Your task to perform on an android device: Open the calendar app, open the side menu, and click the "Day" option Image 0: 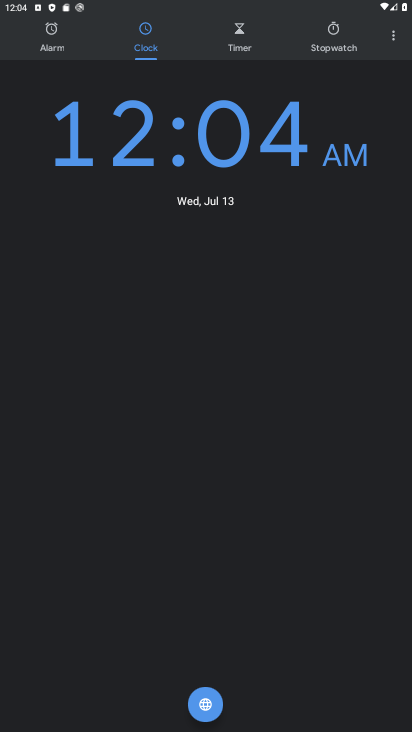
Step 0: press home button
Your task to perform on an android device: Open the calendar app, open the side menu, and click the "Day" option Image 1: 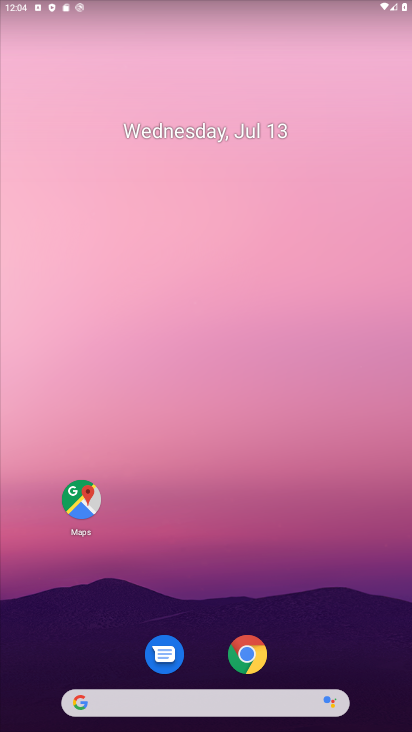
Step 1: drag from (262, 697) to (278, 158)
Your task to perform on an android device: Open the calendar app, open the side menu, and click the "Day" option Image 2: 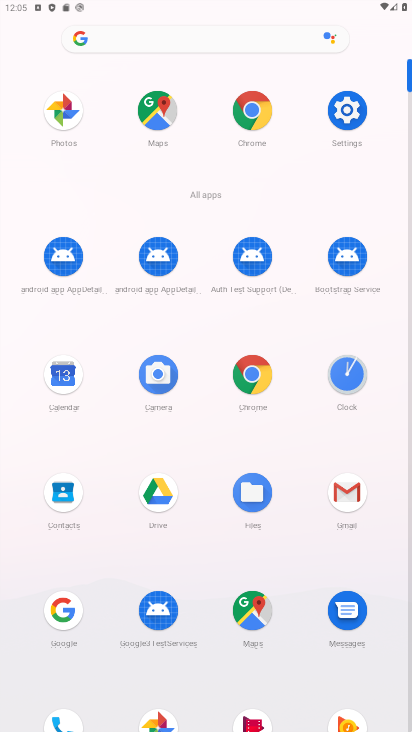
Step 2: click (72, 374)
Your task to perform on an android device: Open the calendar app, open the side menu, and click the "Day" option Image 3: 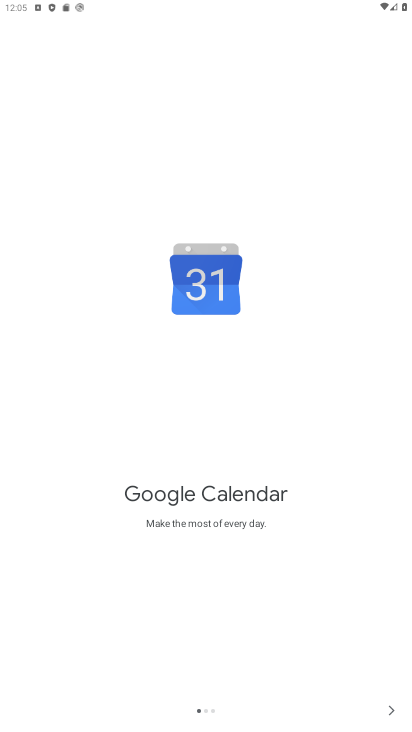
Step 3: click (386, 703)
Your task to perform on an android device: Open the calendar app, open the side menu, and click the "Day" option Image 4: 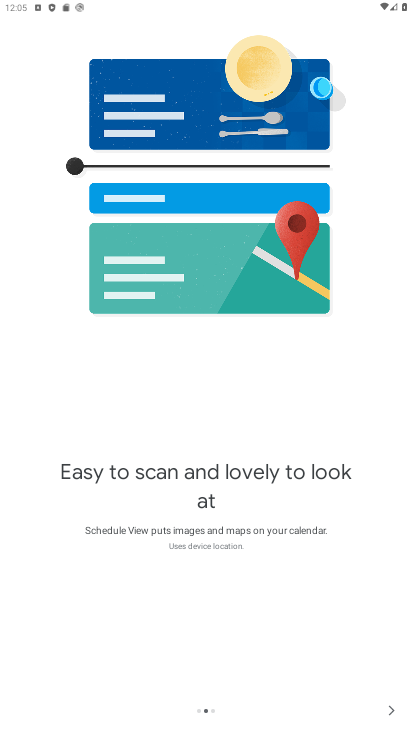
Step 4: click (392, 712)
Your task to perform on an android device: Open the calendar app, open the side menu, and click the "Day" option Image 5: 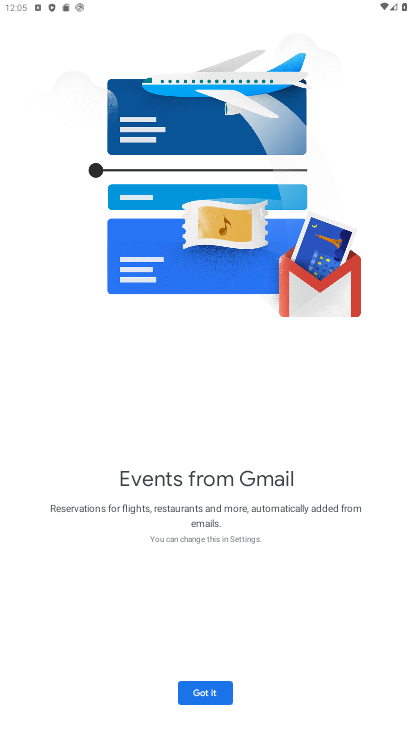
Step 5: click (225, 698)
Your task to perform on an android device: Open the calendar app, open the side menu, and click the "Day" option Image 6: 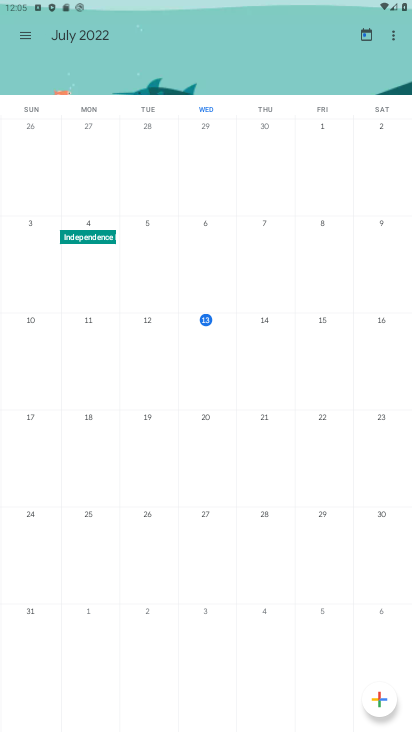
Step 6: click (33, 34)
Your task to perform on an android device: Open the calendar app, open the side menu, and click the "Day" option Image 7: 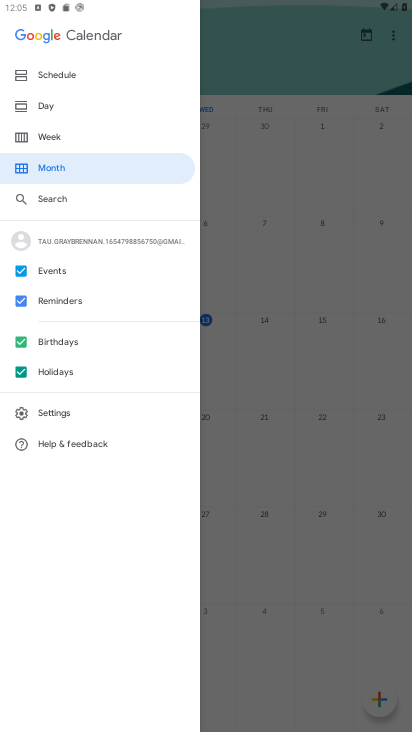
Step 7: click (48, 101)
Your task to perform on an android device: Open the calendar app, open the side menu, and click the "Day" option Image 8: 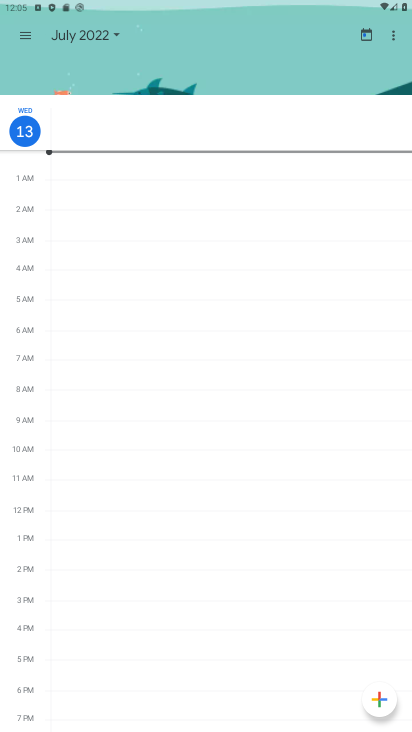
Step 8: task complete